Your task to perform on an android device: star an email in the gmail app Image 0: 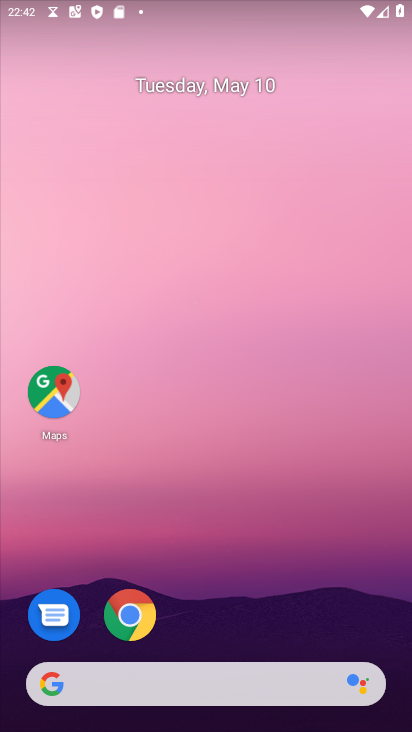
Step 0: drag from (243, 625) to (217, 8)
Your task to perform on an android device: star an email in the gmail app Image 1: 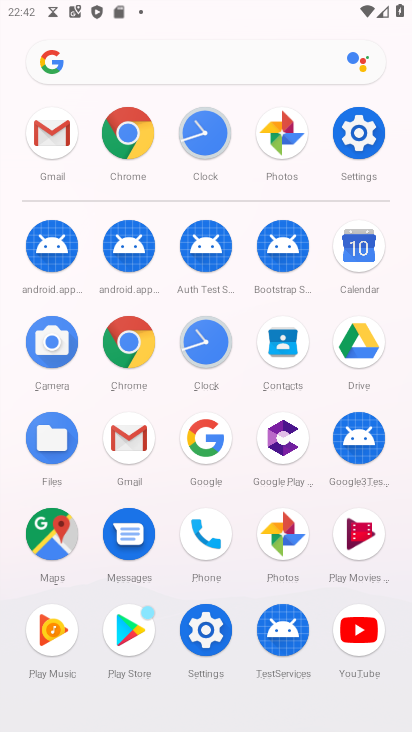
Step 1: click (52, 133)
Your task to perform on an android device: star an email in the gmail app Image 2: 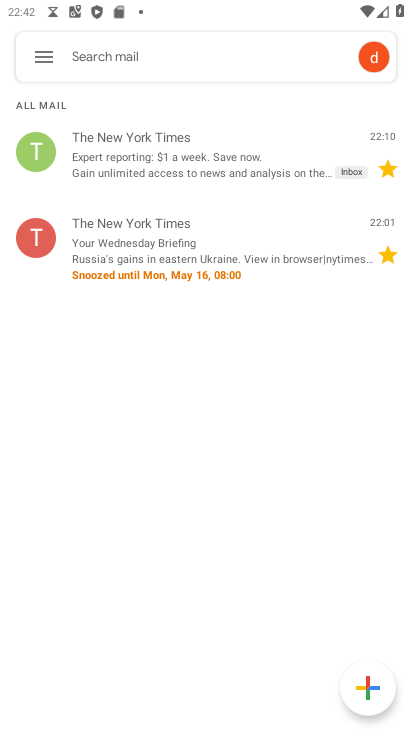
Step 2: task complete